Your task to perform on an android device: change notifications settings Image 0: 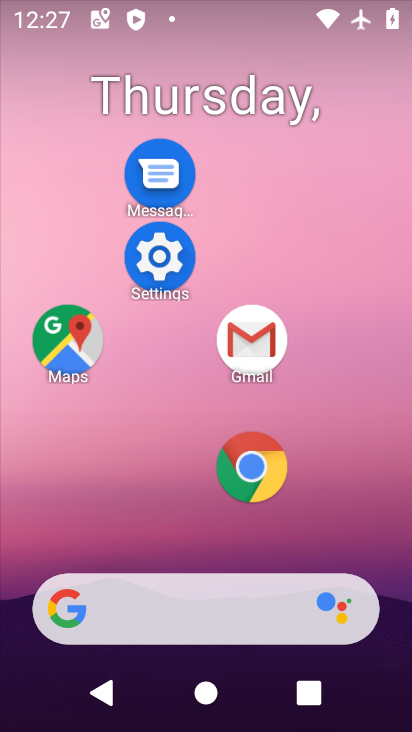
Step 0: click (157, 268)
Your task to perform on an android device: change notifications settings Image 1: 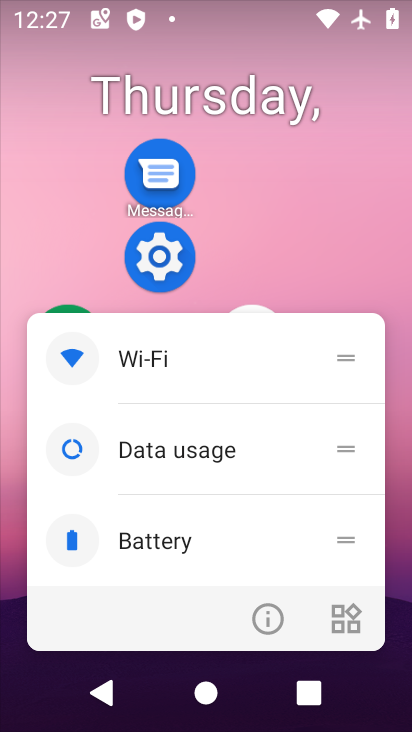
Step 1: click (270, 609)
Your task to perform on an android device: change notifications settings Image 2: 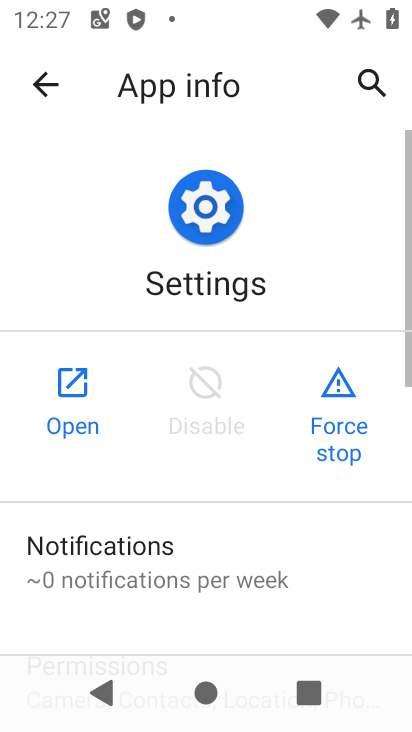
Step 2: click (61, 390)
Your task to perform on an android device: change notifications settings Image 3: 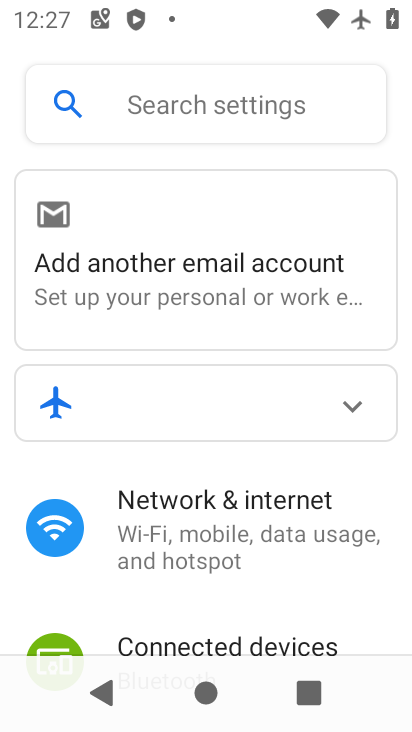
Step 3: drag from (200, 568) to (256, 297)
Your task to perform on an android device: change notifications settings Image 4: 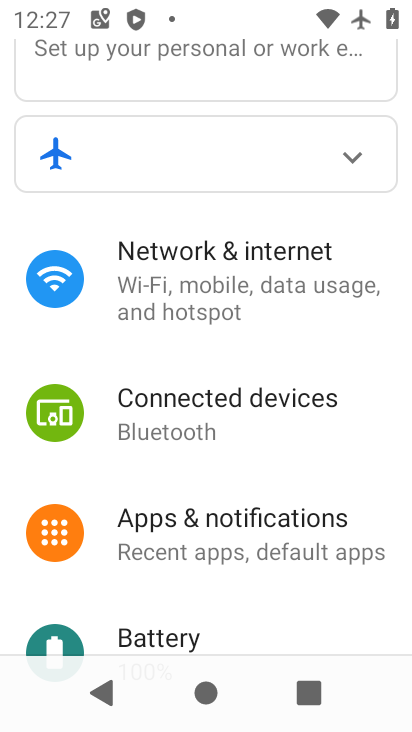
Step 4: drag from (231, 575) to (274, 377)
Your task to perform on an android device: change notifications settings Image 5: 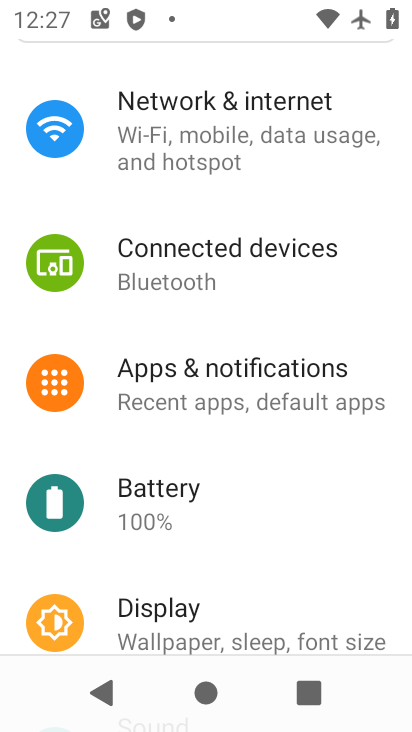
Step 5: drag from (211, 599) to (240, 316)
Your task to perform on an android device: change notifications settings Image 6: 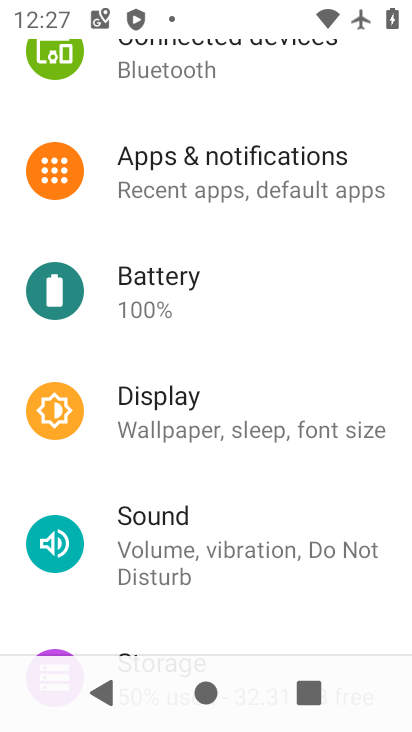
Step 6: click (213, 182)
Your task to perform on an android device: change notifications settings Image 7: 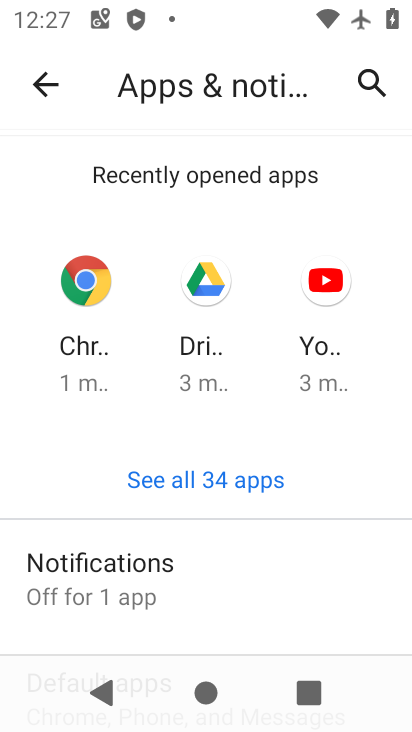
Step 7: drag from (187, 604) to (260, 288)
Your task to perform on an android device: change notifications settings Image 8: 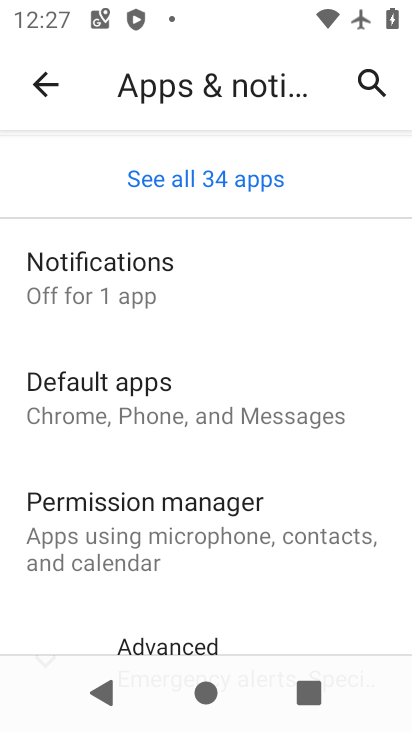
Step 8: click (184, 265)
Your task to perform on an android device: change notifications settings Image 9: 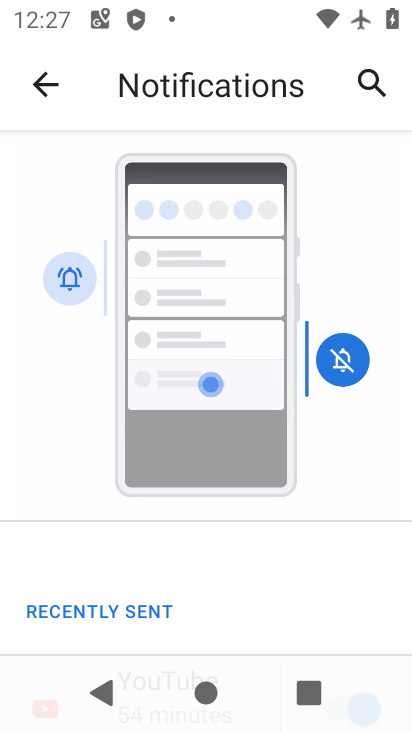
Step 9: drag from (199, 566) to (275, 254)
Your task to perform on an android device: change notifications settings Image 10: 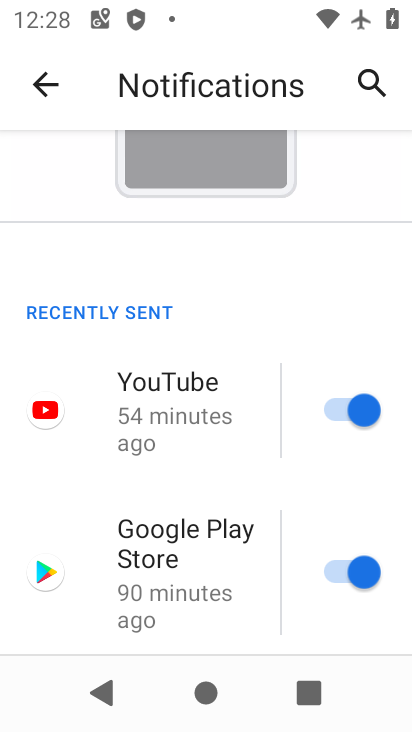
Step 10: drag from (183, 526) to (224, 308)
Your task to perform on an android device: change notifications settings Image 11: 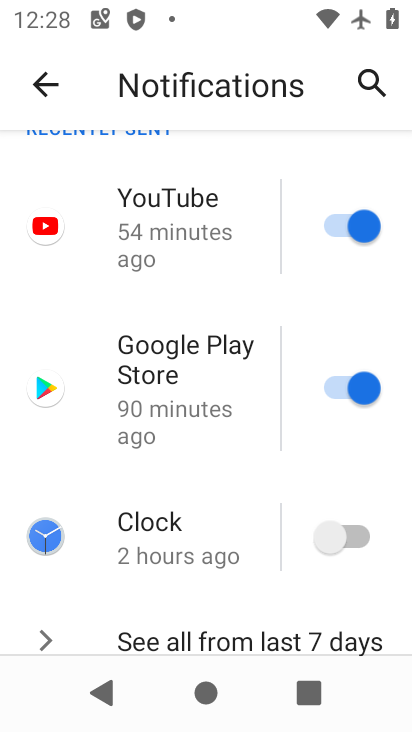
Step 11: drag from (175, 572) to (254, 297)
Your task to perform on an android device: change notifications settings Image 12: 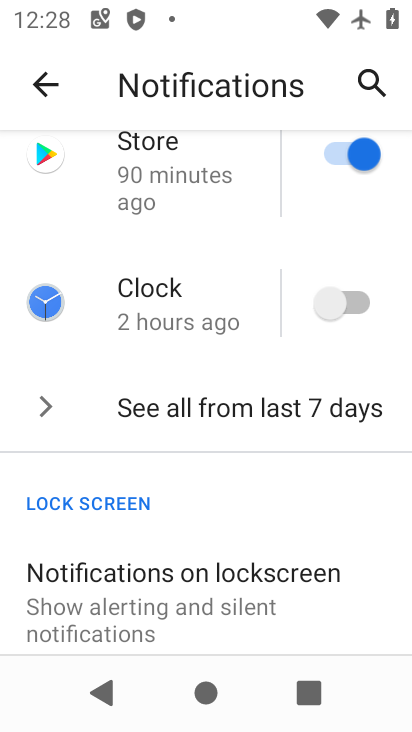
Step 12: click (333, 317)
Your task to perform on an android device: change notifications settings Image 13: 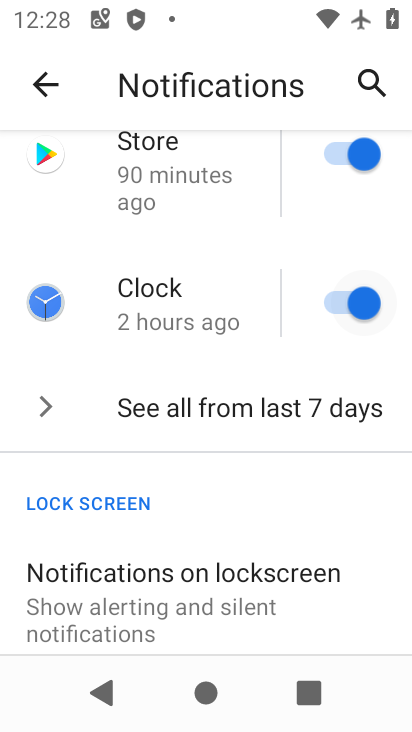
Step 13: task complete